Your task to perform on an android device: Go to Yahoo.com Image 0: 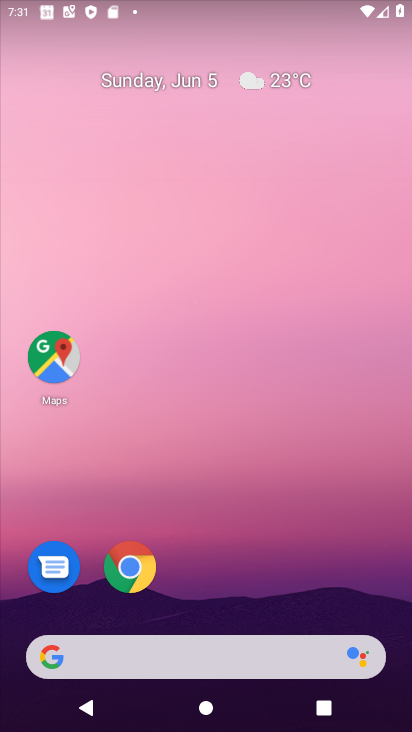
Step 0: drag from (394, 635) to (188, 56)
Your task to perform on an android device: Go to Yahoo.com Image 1: 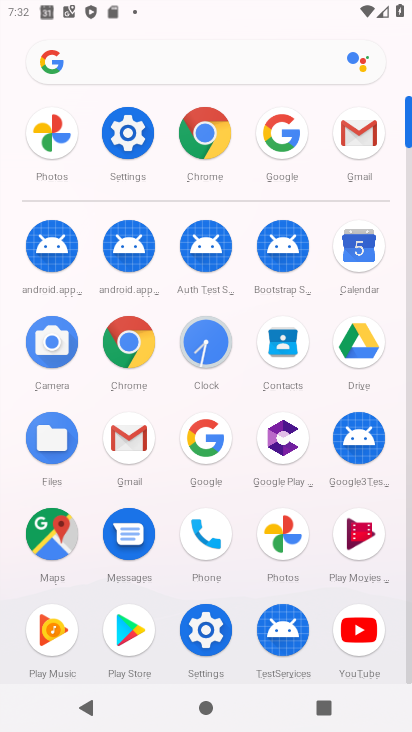
Step 1: click (199, 445)
Your task to perform on an android device: Go to Yahoo.com Image 2: 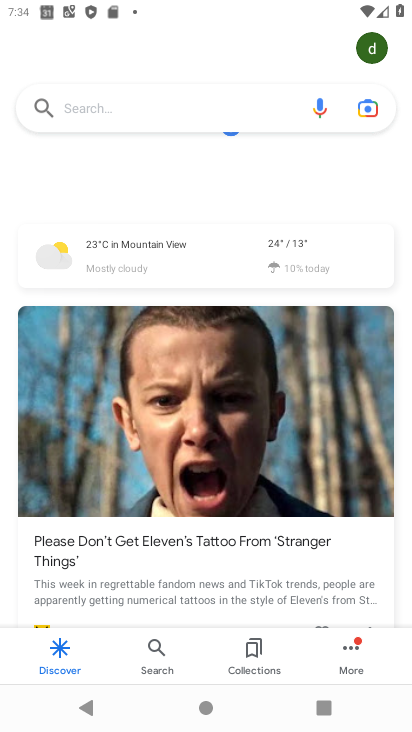
Step 2: click (107, 115)
Your task to perform on an android device: Go to Yahoo.com Image 3: 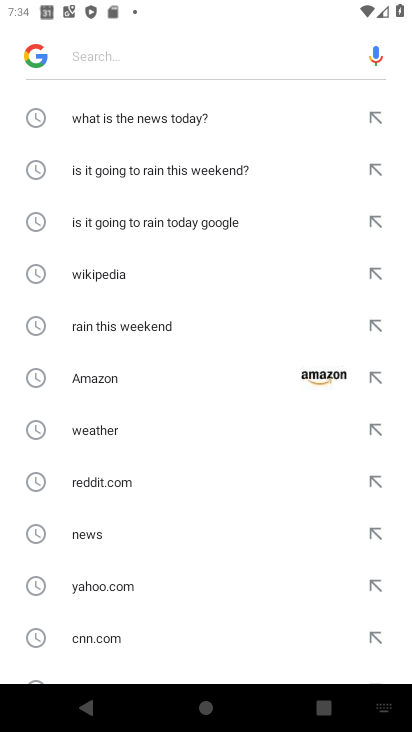
Step 3: click (163, 580)
Your task to perform on an android device: Go to Yahoo.com Image 4: 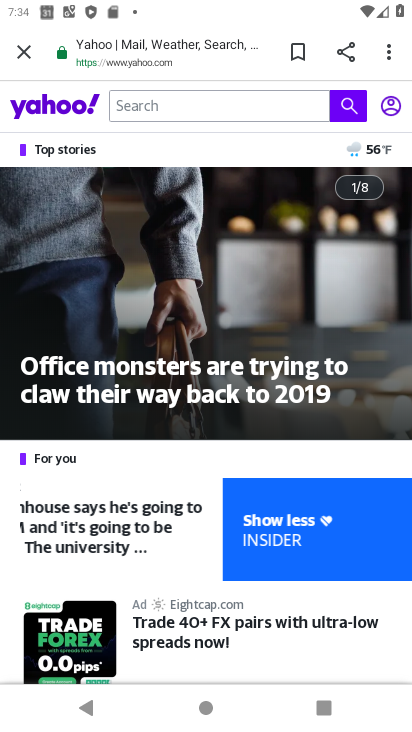
Step 4: task complete